Your task to perform on an android device: check storage Image 0: 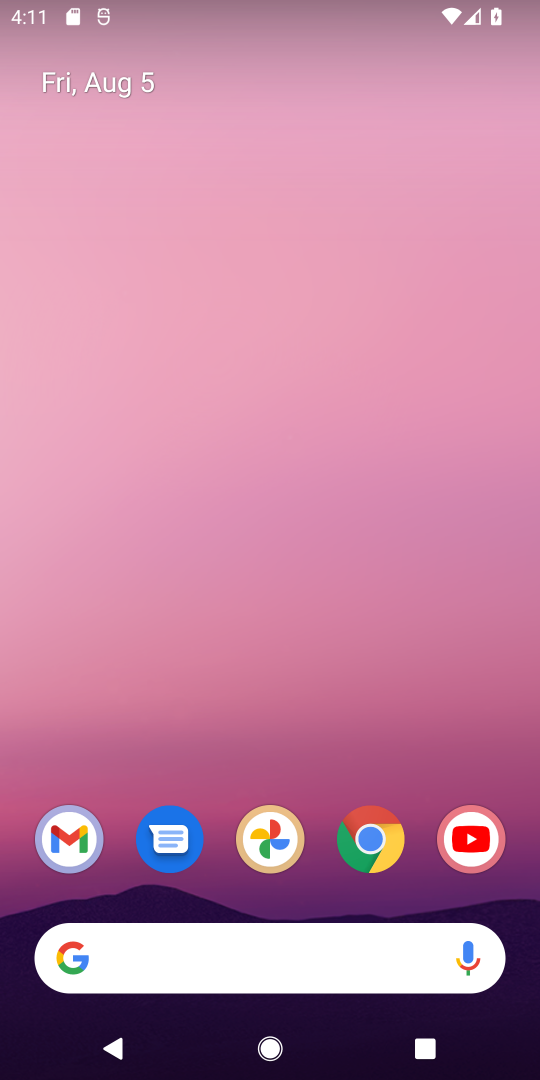
Step 0: drag from (272, 626) to (313, 115)
Your task to perform on an android device: check storage Image 1: 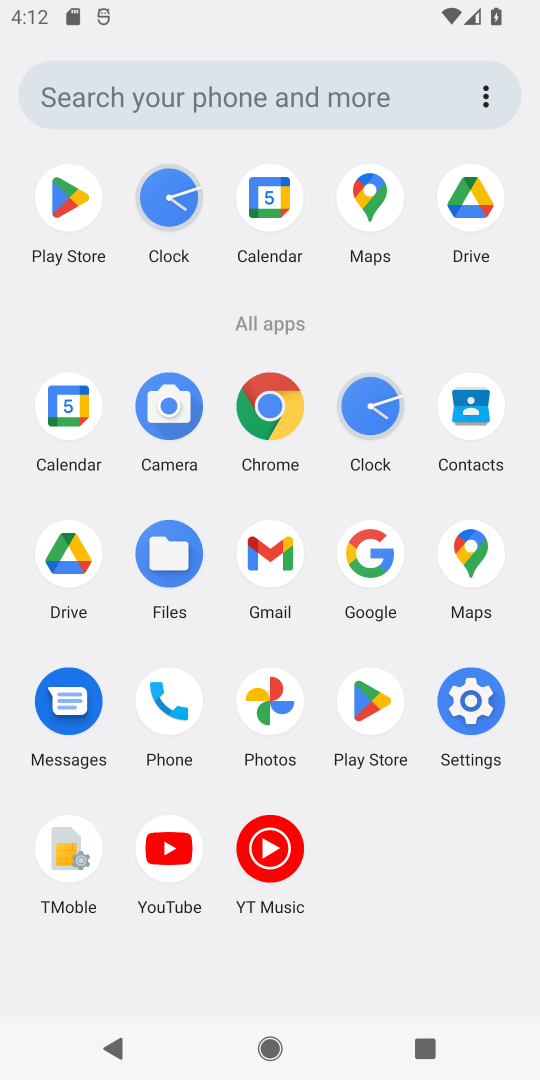
Step 1: click (467, 730)
Your task to perform on an android device: check storage Image 2: 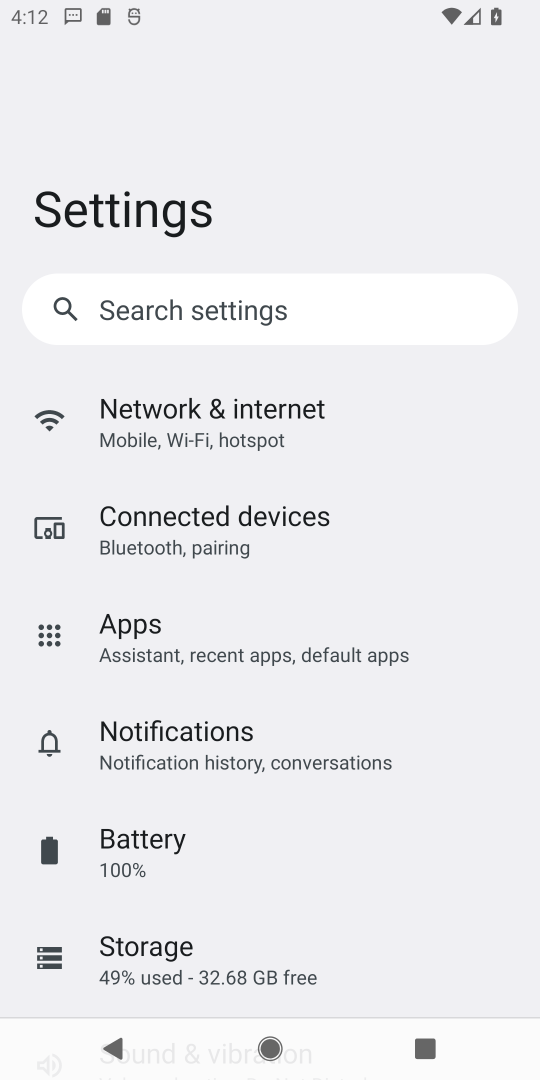
Step 2: click (219, 942)
Your task to perform on an android device: check storage Image 3: 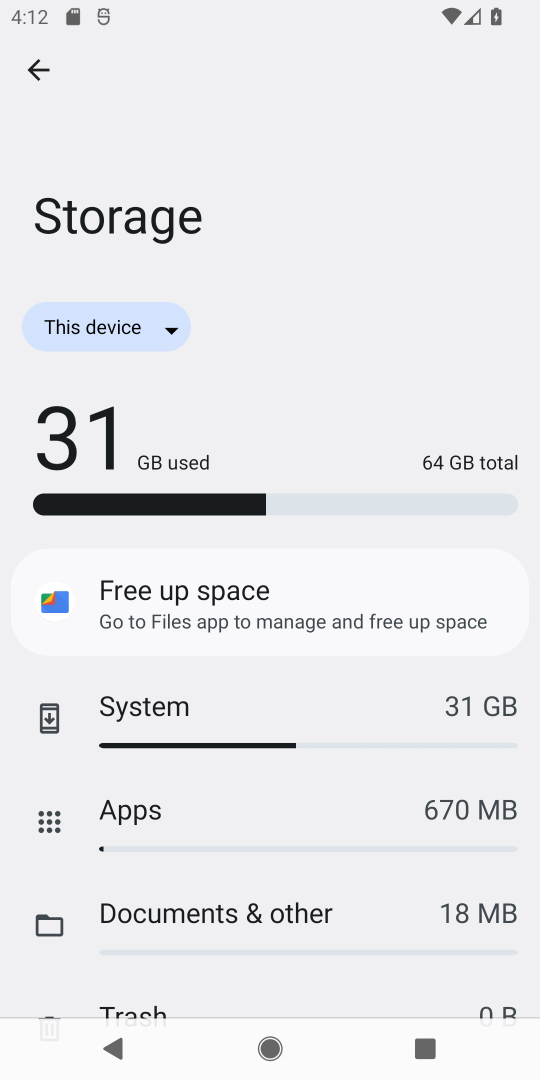
Step 3: click (264, 617)
Your task to perform on an android device: check storage Image 4: 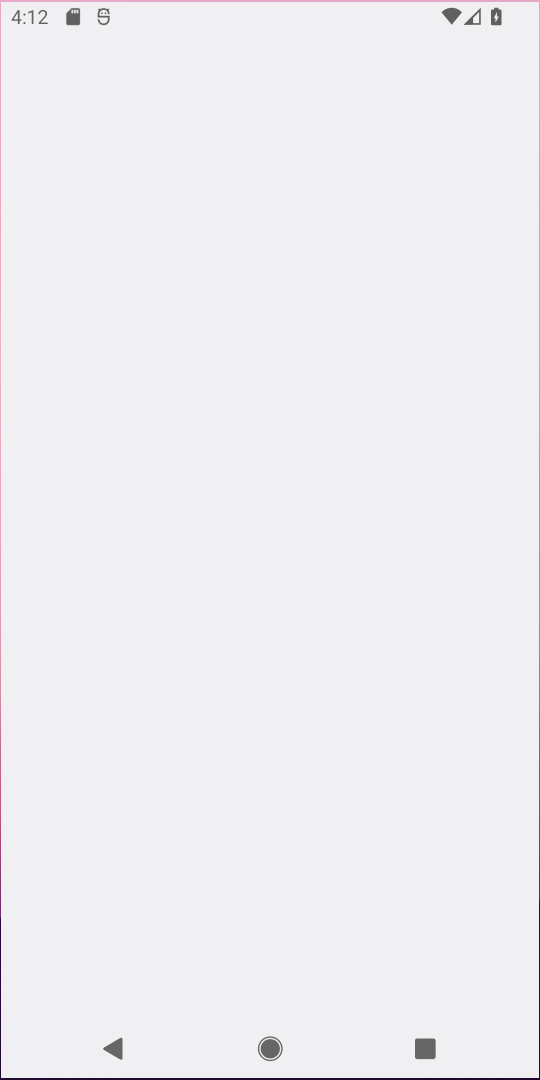
Step 4: click (218, 467)
Your task to perform on an android device: check storage Image 5: 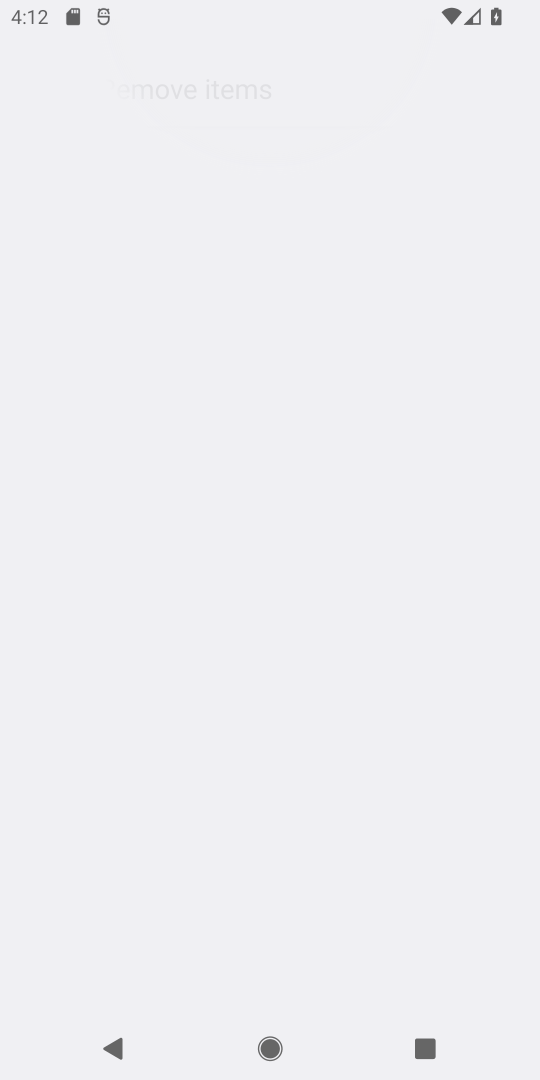
Step 5: task complete